Your task to perform on an android device: turn on javascript in the chrome app Image 0: 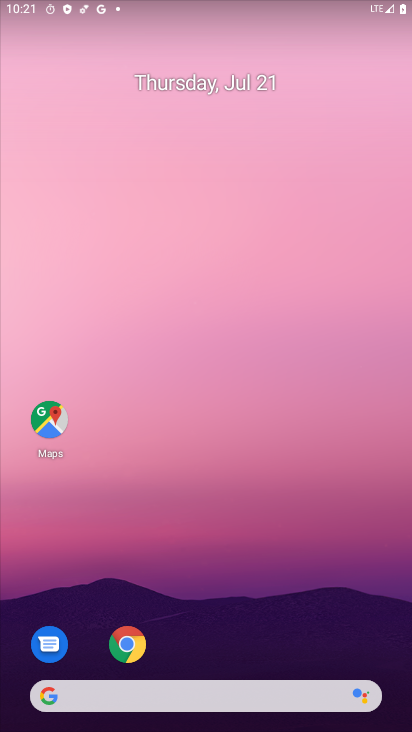
Step 0: press home button
Your task to perform on an android device: turn on javascript in the chrome app Image 1: 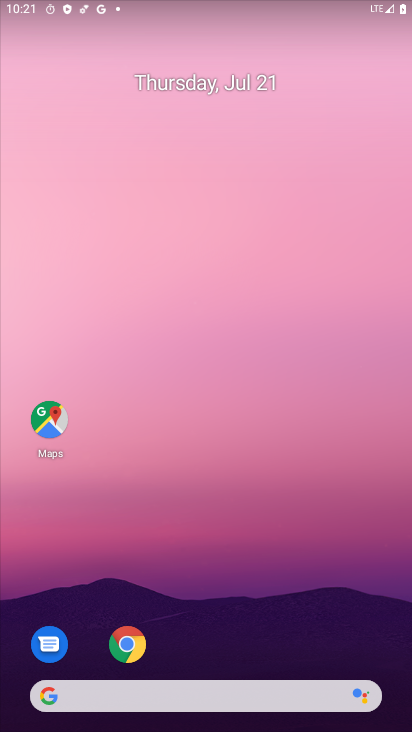
Step 1: click (127, 638)
Your task to perform on an android device: turn on javascript in the chrome app Image 2: 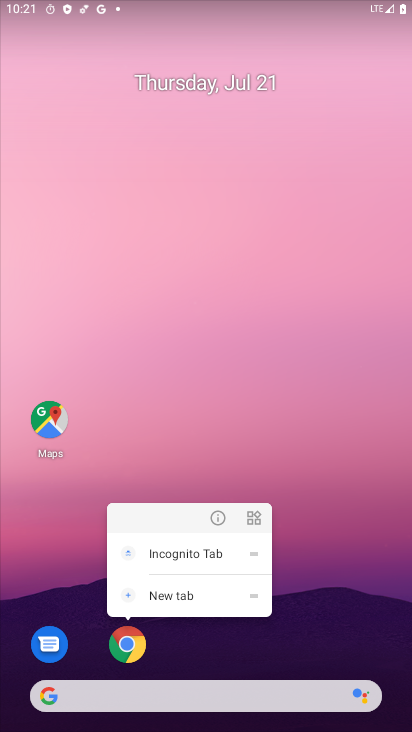
Step 2: click (123, 641)
Your task to perform on an android device: turn on javascript in the chrome app Image 3: 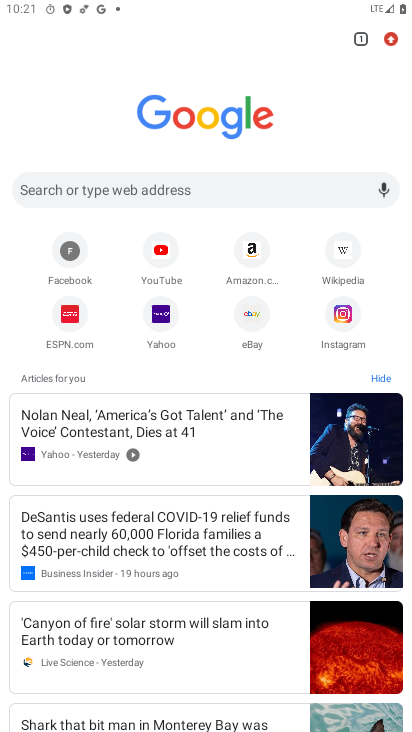
Step 3: click (390, 34)
Your task to perform on an android device: turn on javascript in the chrome app Image 4: 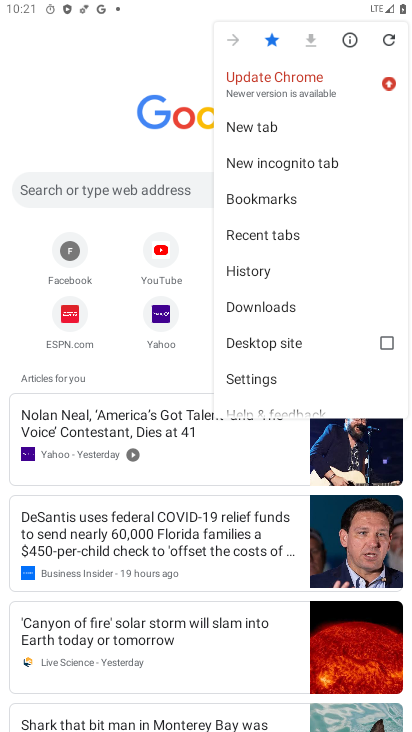
Step 4: click (283, 379)
Your task to perform on an android device: turn on javascript in the chrome app Image 5: 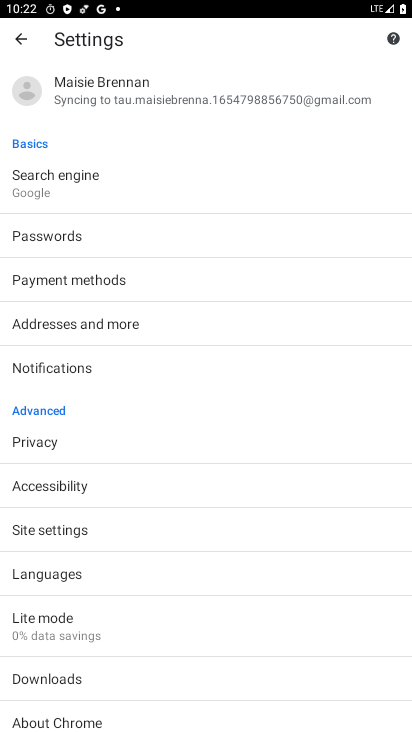
Step 5: click (108, 527)
Your task to perform on an android device: turn on javascript in the chrome app Image 6: 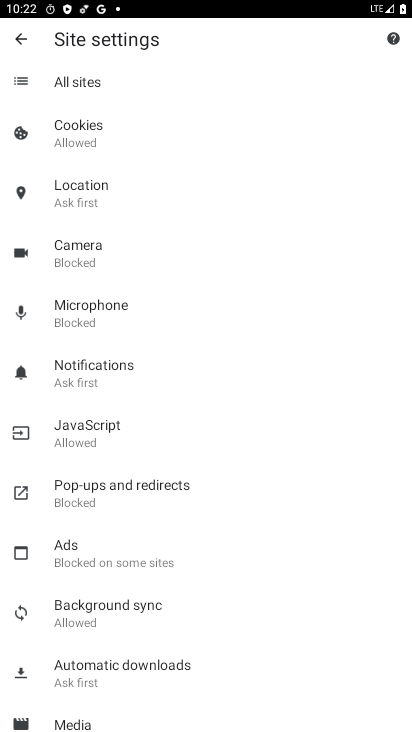
Step 6: click (139, 427)
Your task to perform on an android device: turn on javascript in the chrome app Image 7: 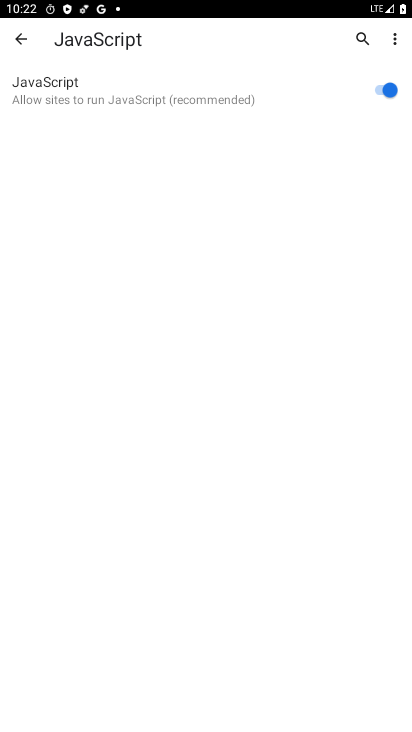
Step 7: task complete